Your task to perform on an android device: Open calendar and show me the second week of next month Image 0: 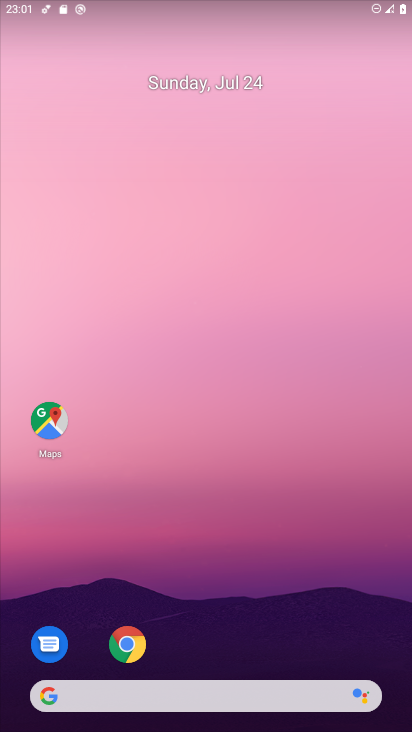
Step 0: drag from (372, 654) to (325, 114)
Your task to perform on an android device: Open calendar and show me the second week of next month Image 1: 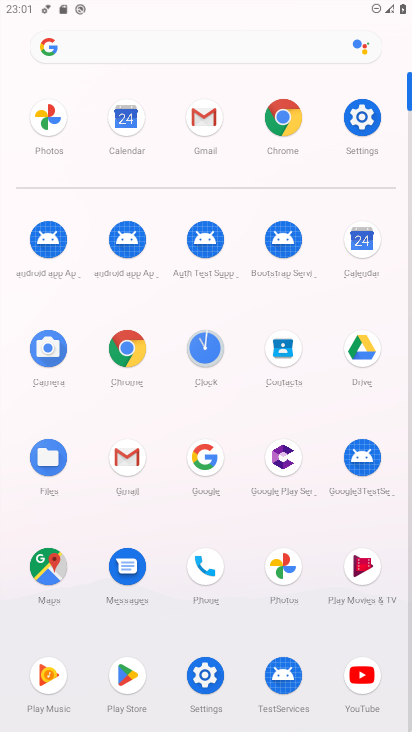
Step 1: click (358, 240)
Your task to perform on an android device: Open calendar and show me the second week of next month Image 2: 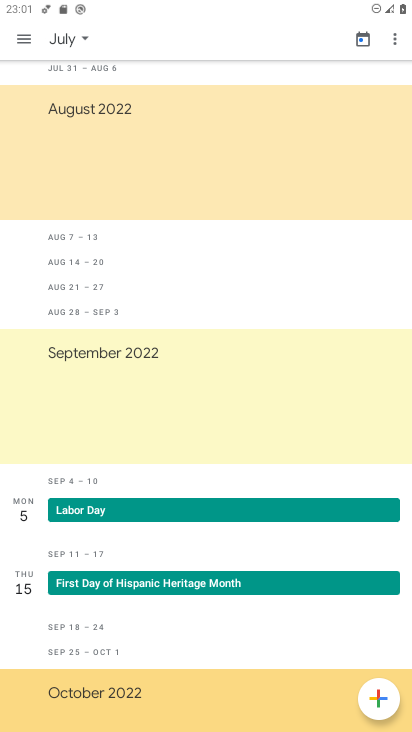
Step 2: click (17, 42)
Your task to perform on an android device: Open calendar and show me the second week of next month Image 3: 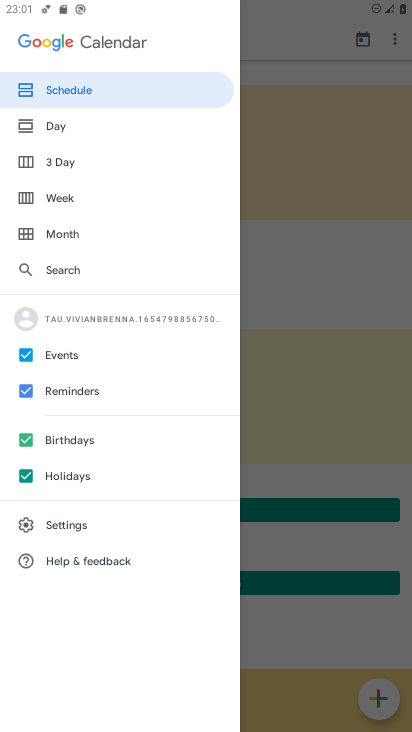
Step 3: click (52, 187)
Your task to perform on an android device: Open calendar and show me the second week of next month Image 4: 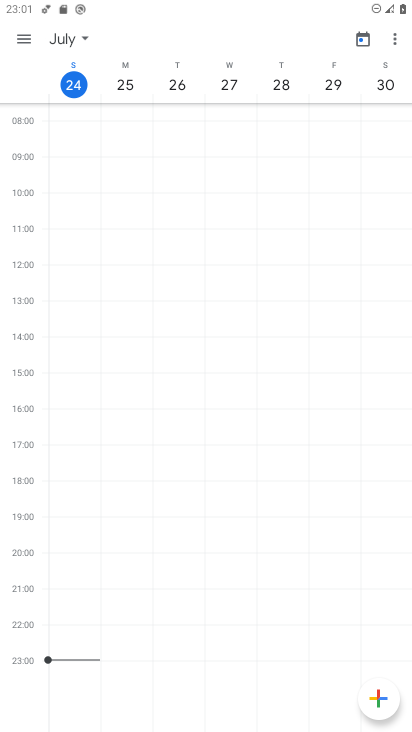
Step 4: click (86, 34)
Your task to perform on an android device: Open calendar and show me the second week of next month Image 5: 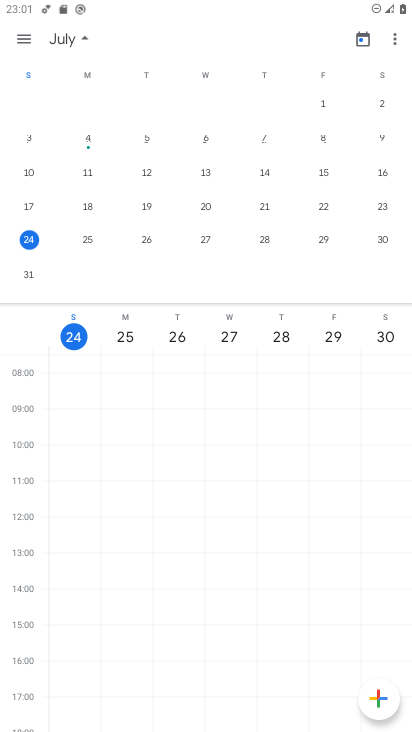
Step 5: drag from (382, 214) to (43, 178)
Your task to perform on an android device: Open calendar and show me the second week of next month Image 6: 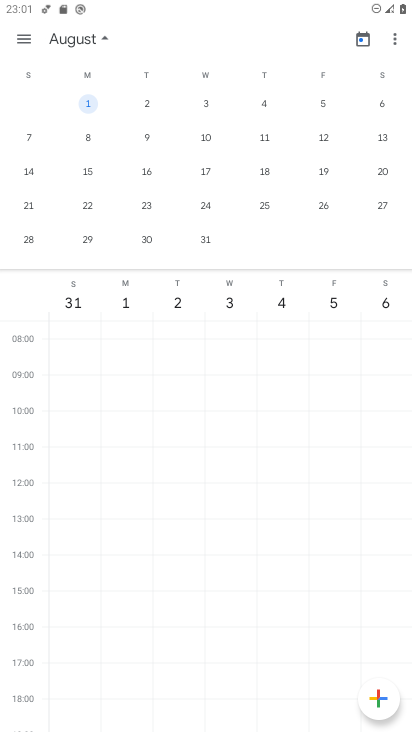
Step 6: click (26, 173)
Your task to perform on an android device: Open calendar and show me the second week of next month Image 7: 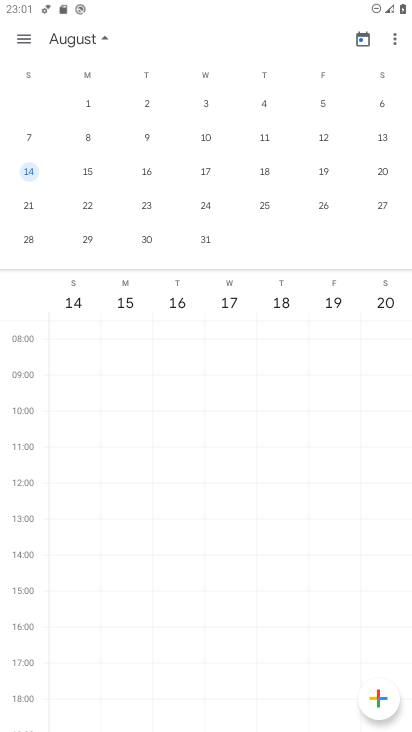
Step 7: click (174, 131)
Your task to perform on an android device: Open calendar and show me the second week of next month Image 8: 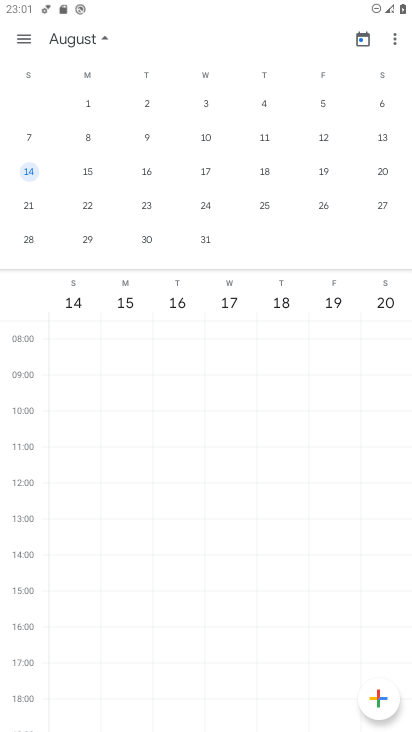
Step 8: task complete